Your task to perform on an android device: Open Yahoo.com Image 0: 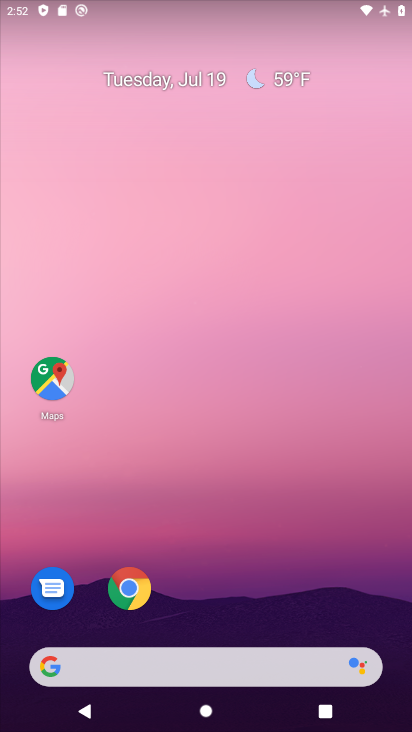
Step 0: click (39, 669)
Your task to perform on an android device: Open Yahoo.com Image 1: 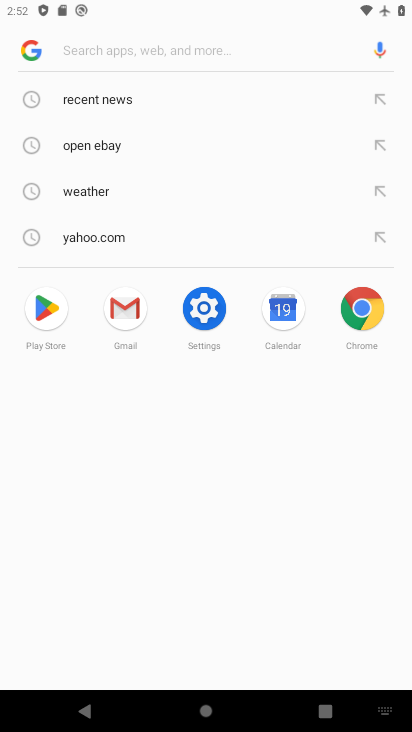
Step 1: click (104, 242)
Your task to perform on an android device: Open Yahoo.com Image 2: 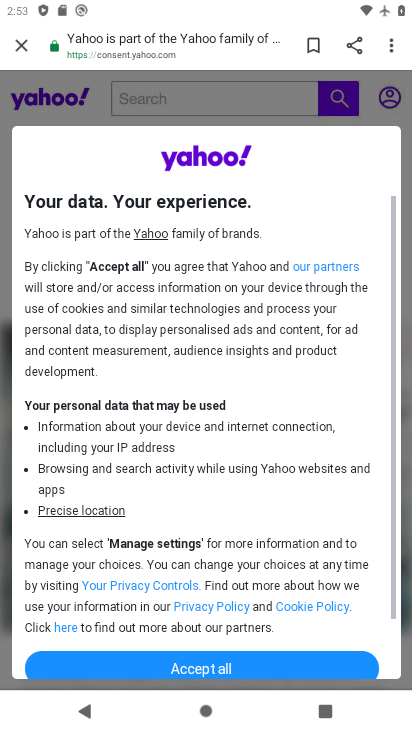
Step 2: click (126, 665)
Your task to perform on an android device: Open Yahoo.com Image 3: 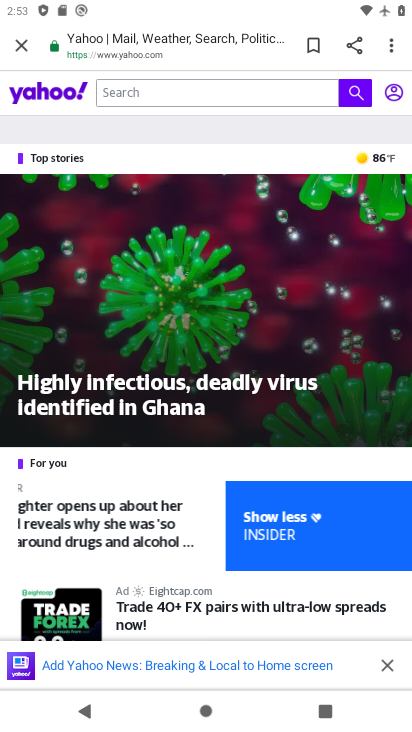
Step 3: task complete